Your task to perform on an android device: Open Google Maps and go to "Timeline" Image 0: 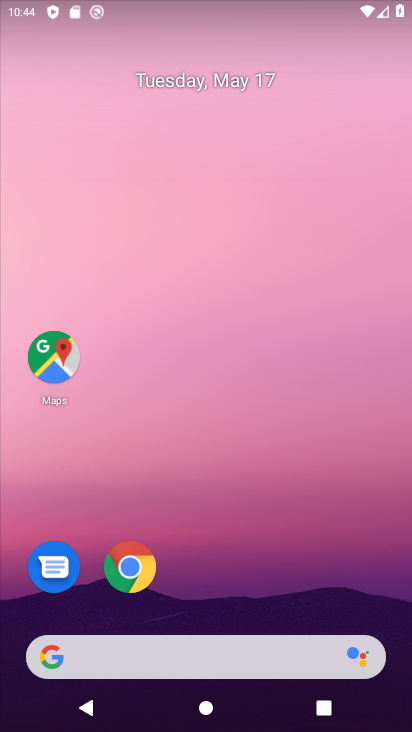
Step 0: drag from (227, 469) to (210, 254)
Your task to perform on an android device: Open Google Maps and go to "Timeline" Image 1: 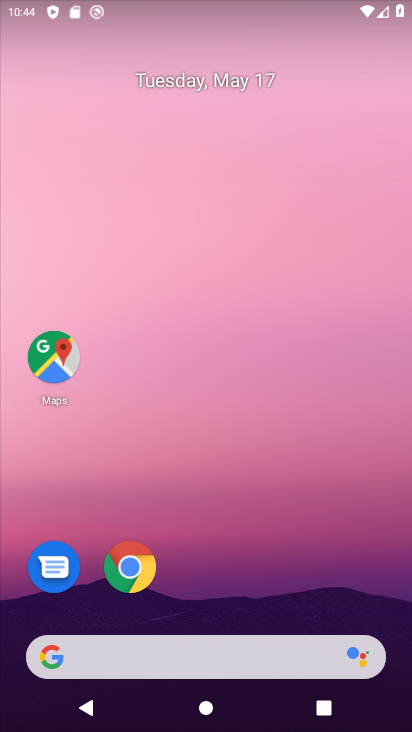
Step 1: click (51, 338)
Your task to perform on an android device: Open Google Maps and go to "Timeline" Image 2: 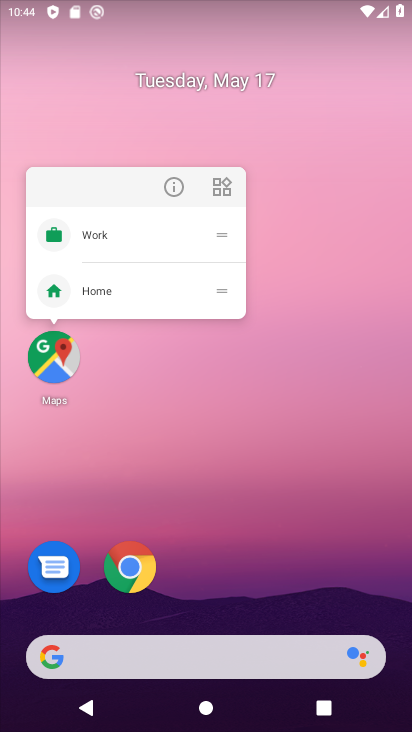
Step 2: click (46, 359)
Your task to perform on an android device: Open Google Maps and go to "Timeline" Image 3: 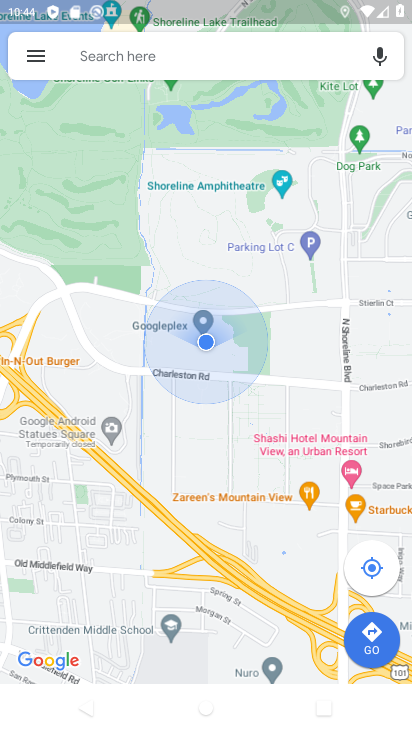
Step 3: click (37, 47)
Your task to perform on an android device: Open Google Maps and go to "Timeline" Image 4: 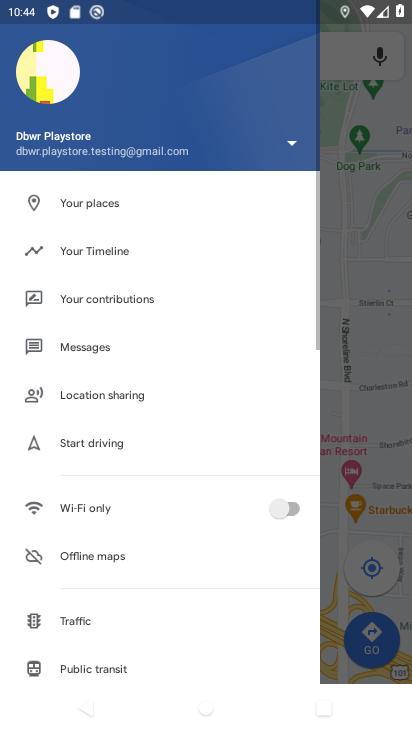
Step 4: click (112, 254)
Your task to perform on an android device: Open Google Maps and go to "Timeline" Image 5: 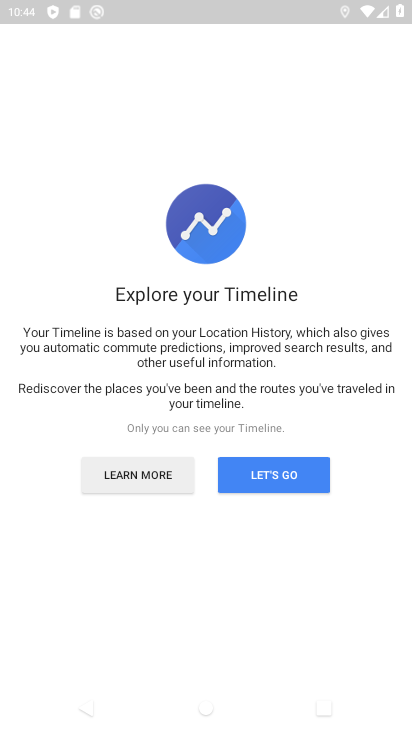
Step 5: click (281, 477)
Your task to perform on an android device: Open Google Maps and go to "Timeline" Image 6: 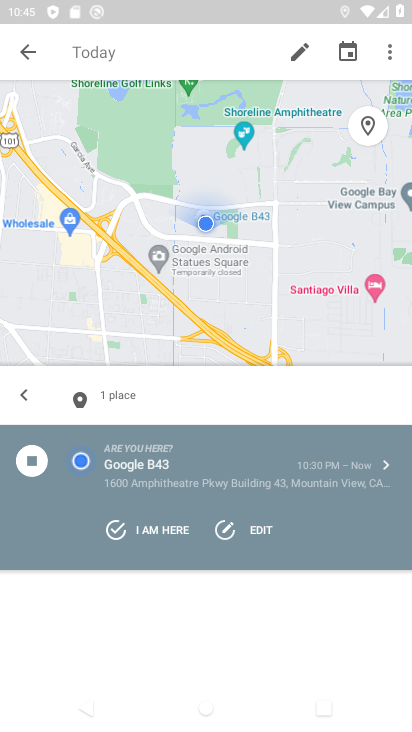
Step 6: task complete